Your task to perform on an android device: Is it going to rain this weekend? Image 0: 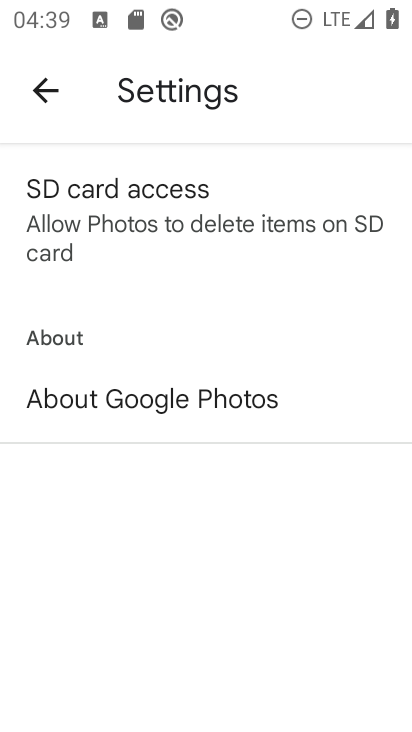
Step 0: press home button
Your task to perform on an android device: Is it going to rain this weekend? Image 1: 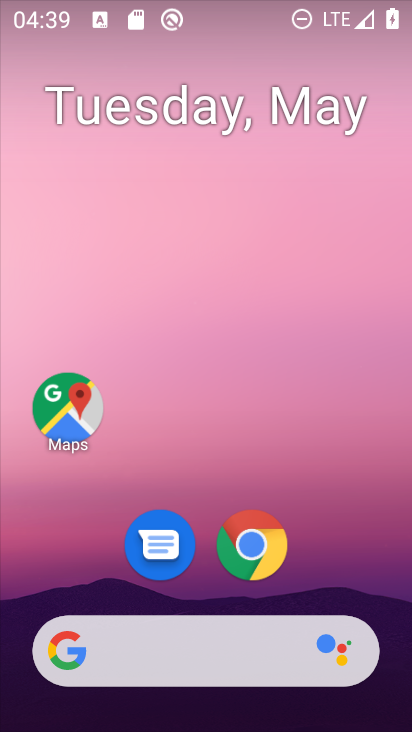
Step 1: click (175, 658)
Your task to perform on an android device: Is it going to rain this weekend? Image 2: 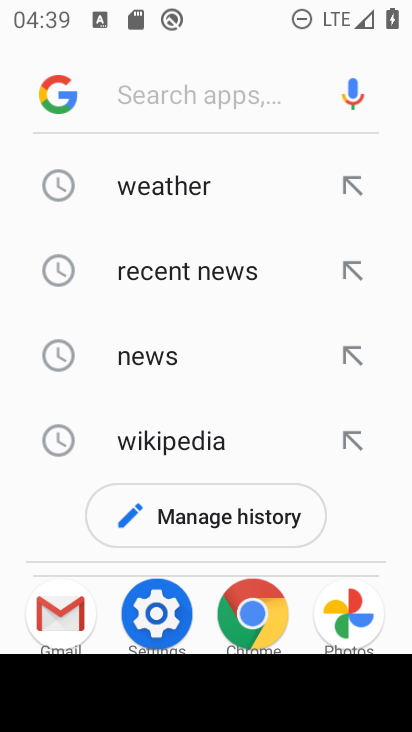
Step 2: click (160, 186)
Your task to perform on an android device: Is it going to rain this weekend? Image 3: 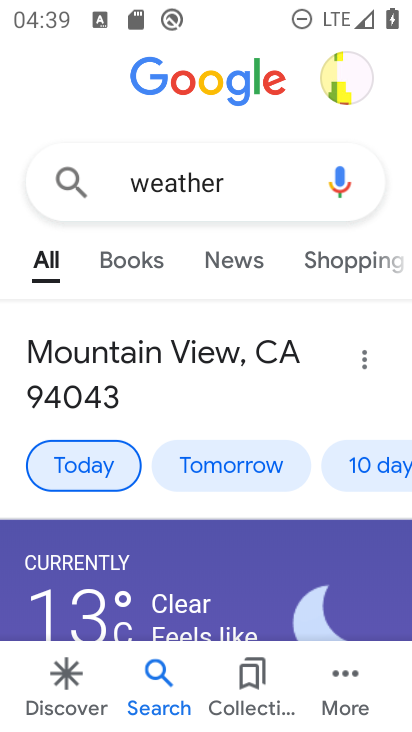
Step 3: click (382, 465)
Your task to perform on an android device: Is it going to rain this weekend? Image 4: 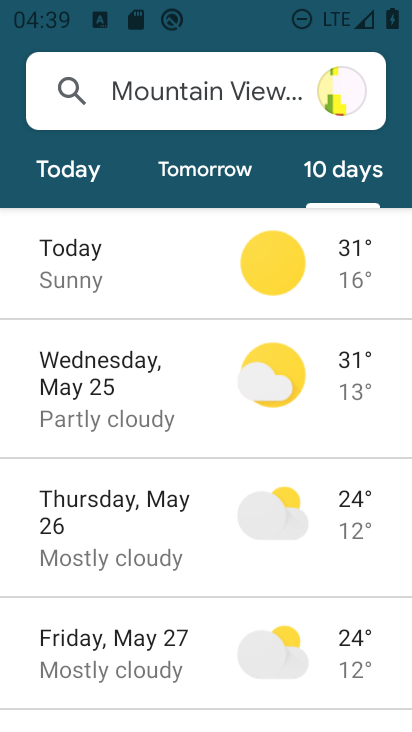
Step 4: task complete